Your task to perform on an android device: change notification settings in the gmail app Image 0: 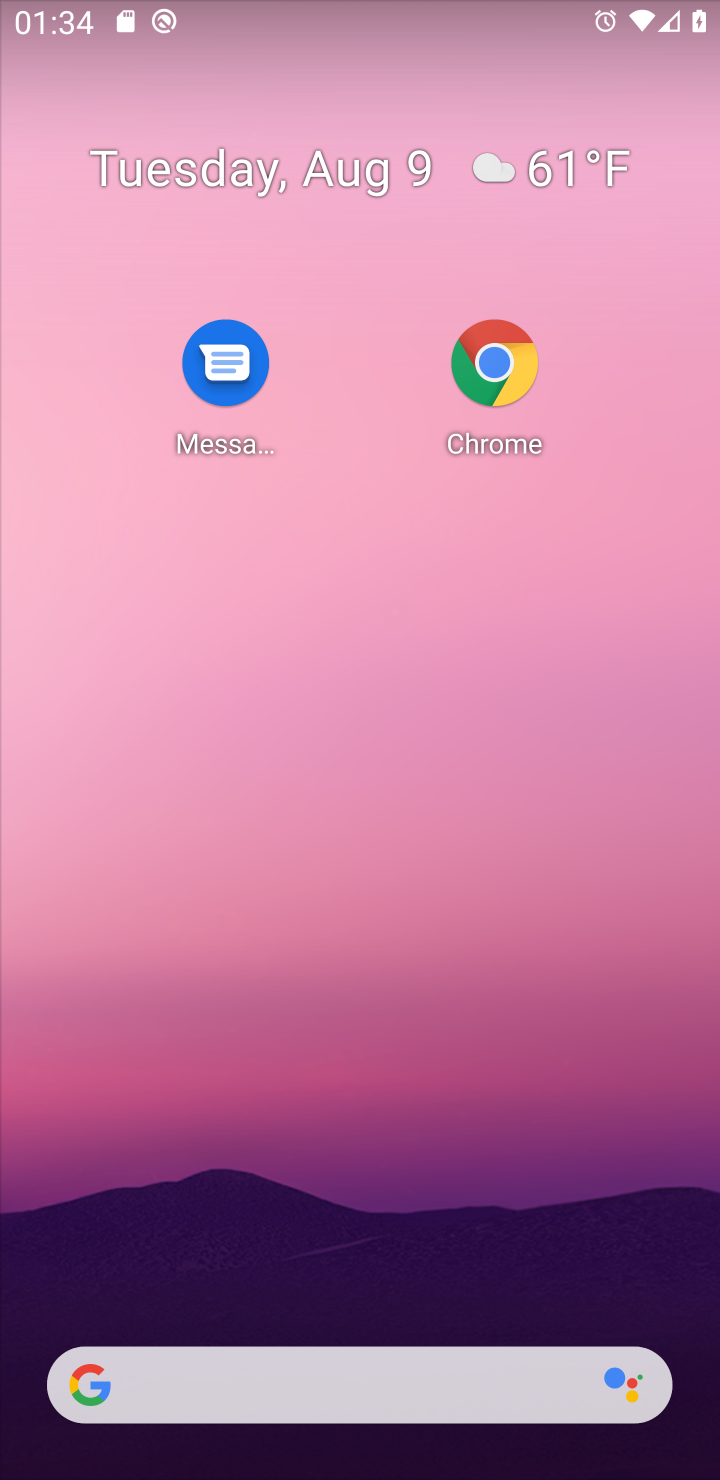
Step 0: drag from (504, 1189) to (647, 547)
Your task to perform on an android device: change notification settings in the gmail app Image 1: 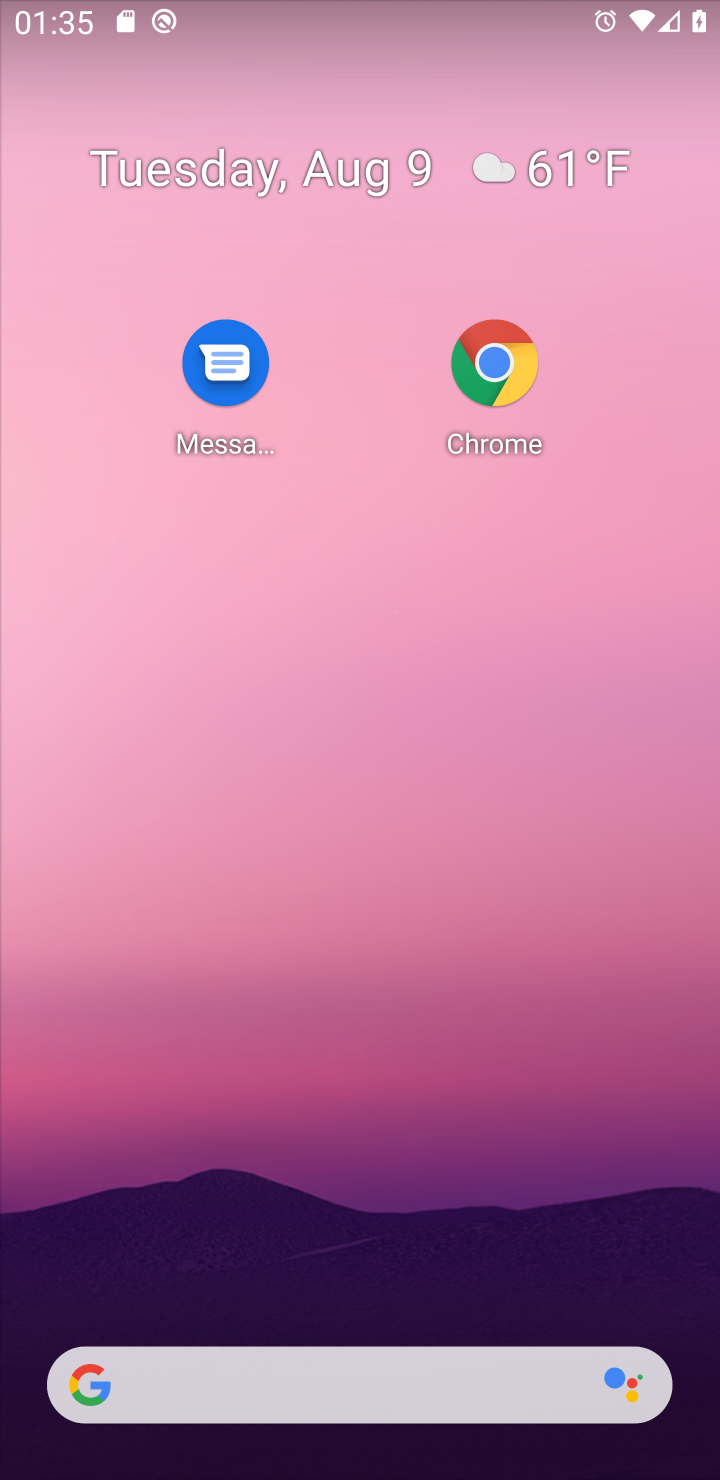
Step 1: drag from (281, 1234) to (270, 342)
Your task to perform on an android device: change notification settings in the gmail app Image 2: 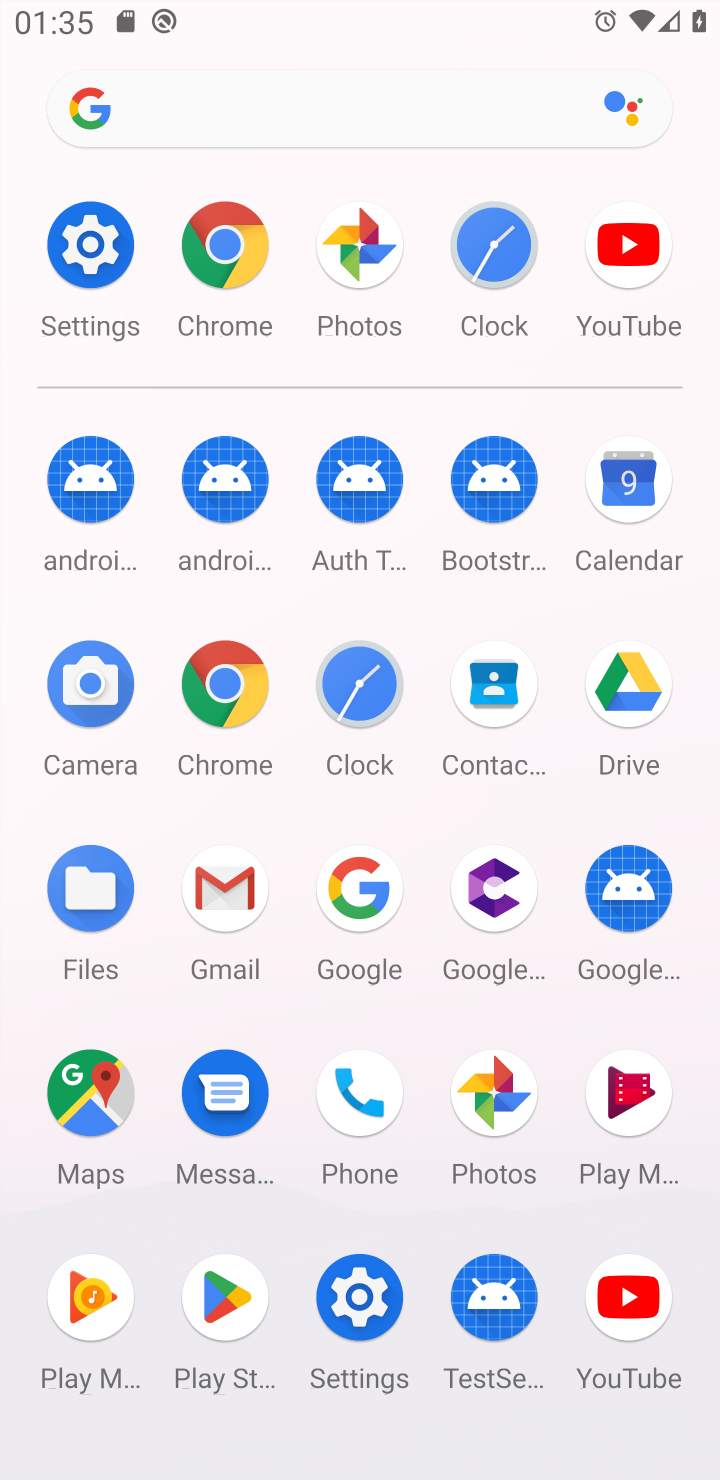
Step 2: click (233, 888)
Your task to perform on an android device: change notification settings in the gmail app Image 3: 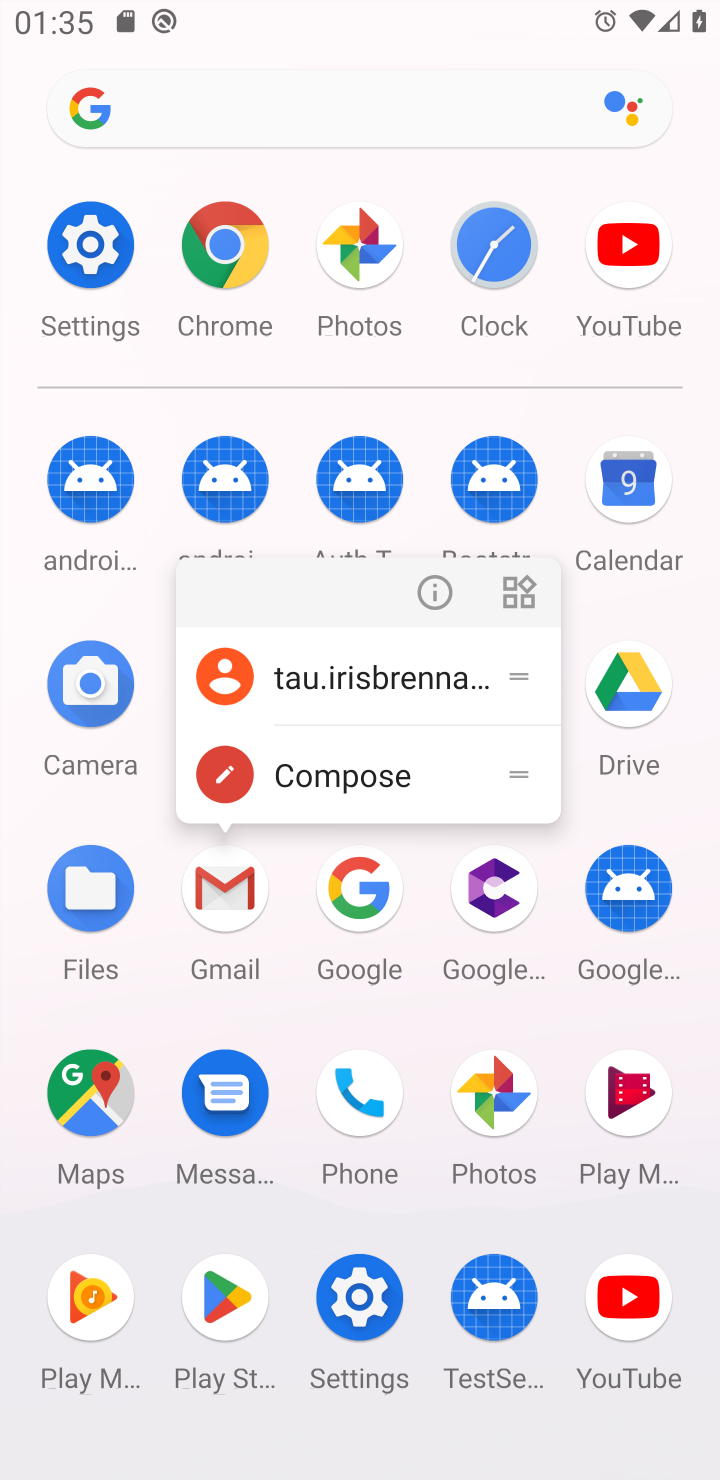
Step 3: click (222, 866)
Your task to perform on an android device: change notification settings in the gmail app Image 4: 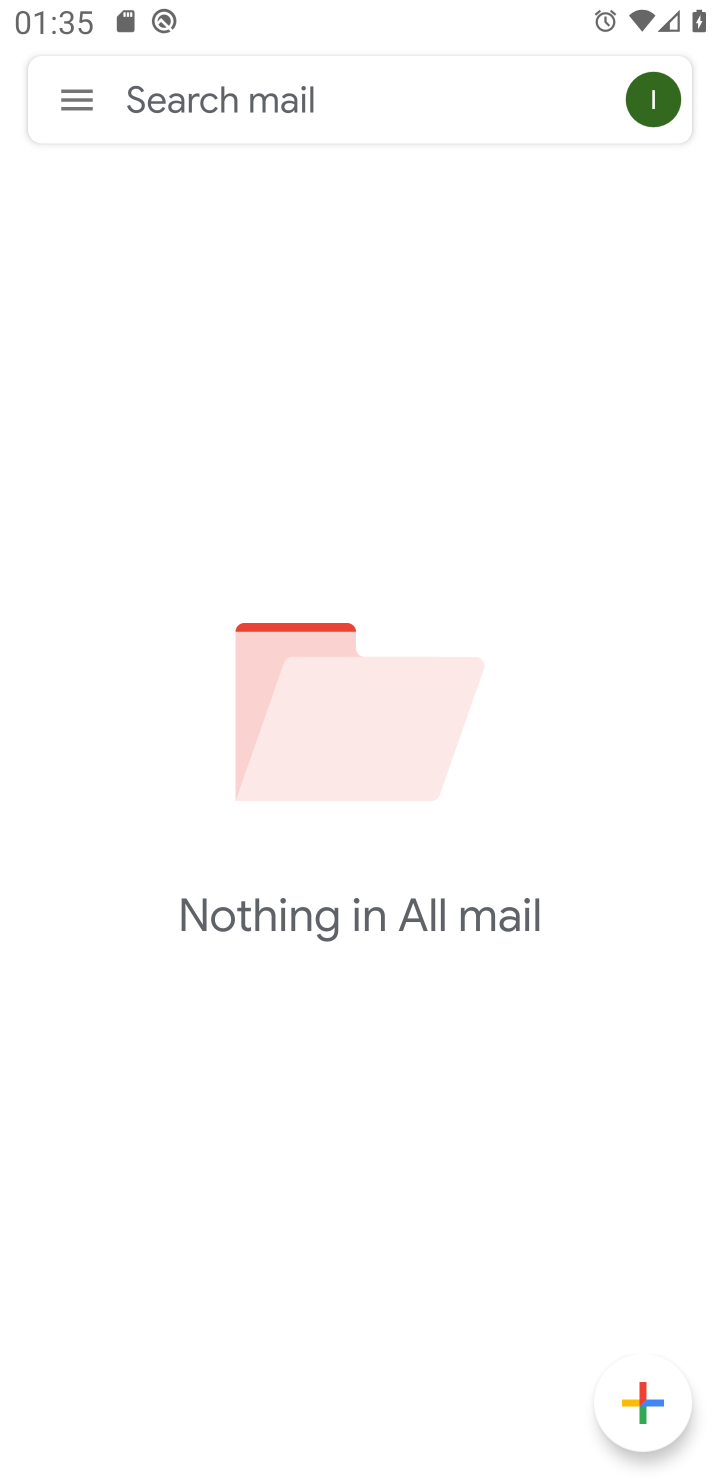
Step 4: click (74, 101)
Your task to perform on an android device: change notification settings in the gmail app Image 5: 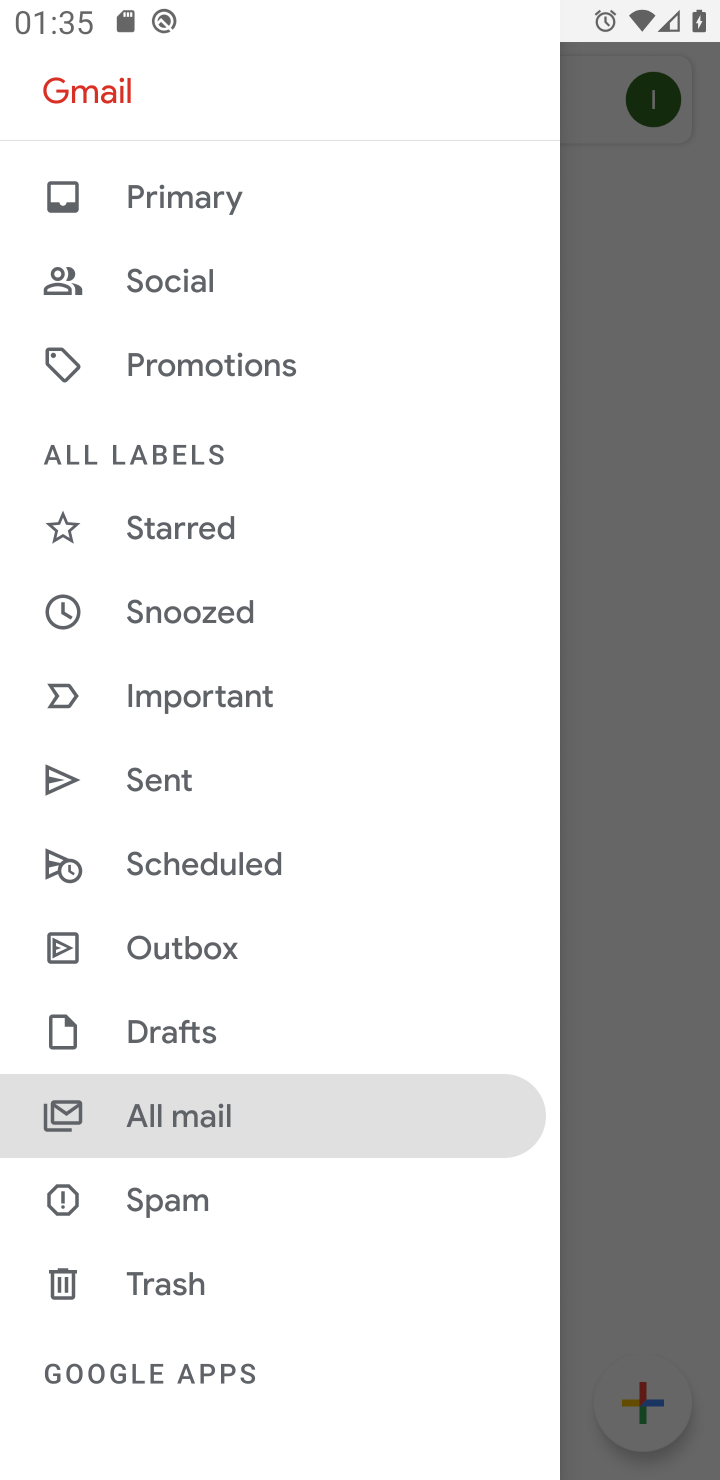
Step 5: drag from (177, 1313) to (350, 500)
Your task to perform on an android device: change notification settings in the gmail app Image 6: 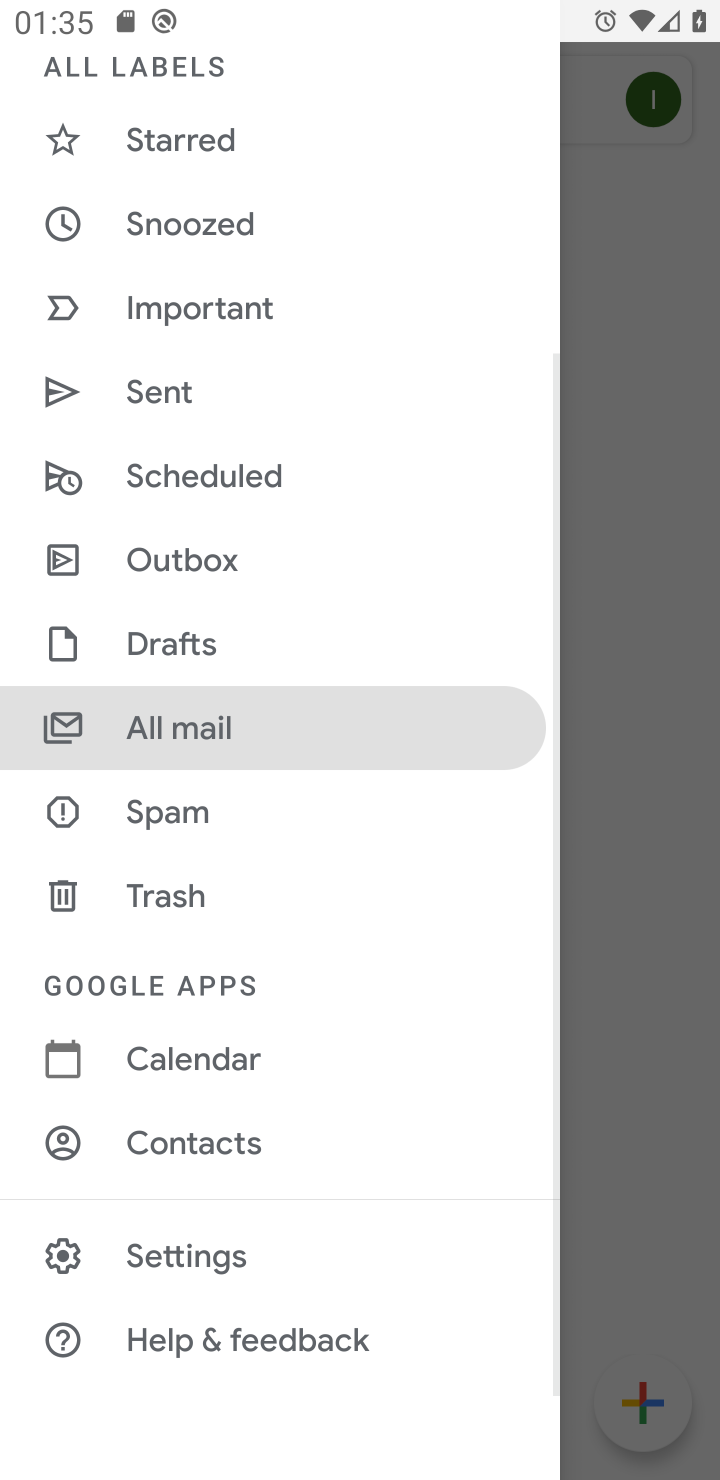
Step 6: click (163, 1255)
Your task to perform on an android device: change notification settings in the gmail app Image 7: 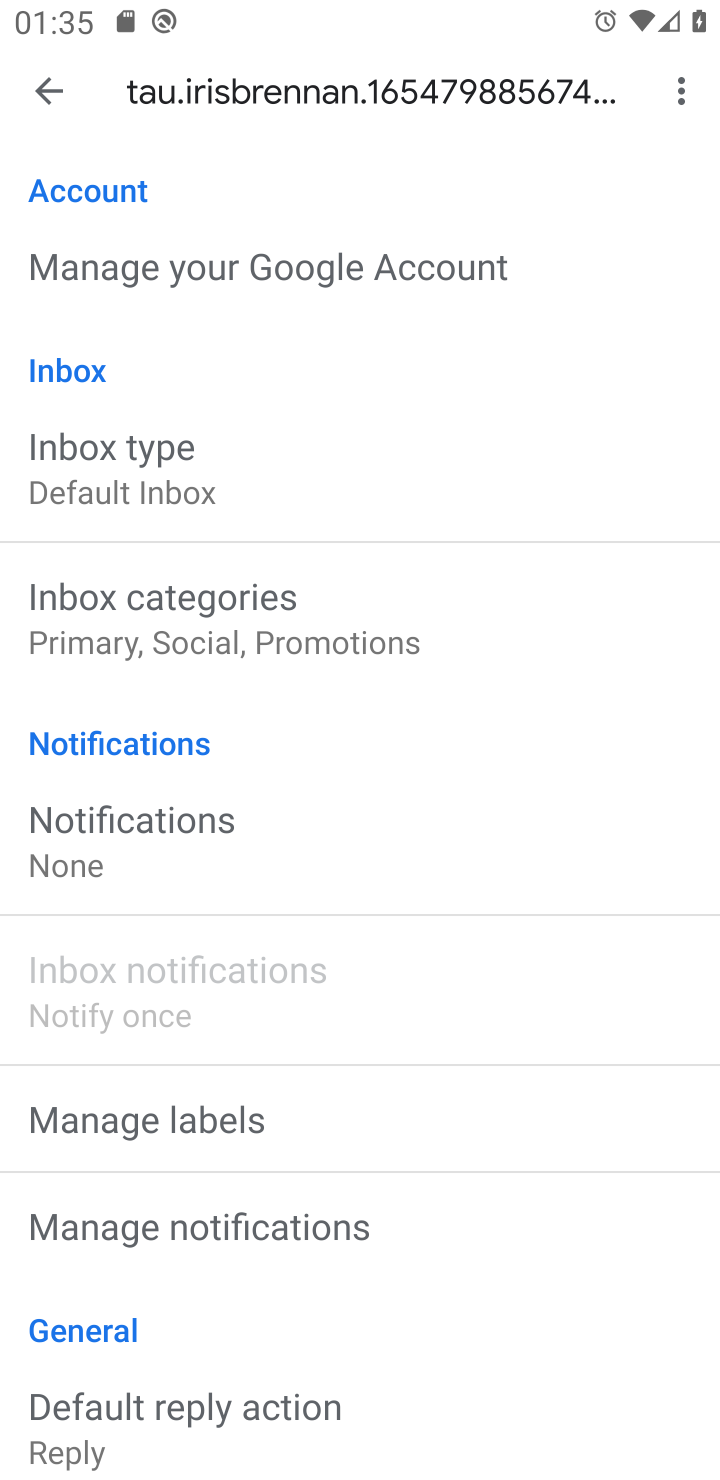
Step 7: click (141, 802)
Your task to perform on an android device: change notification settings in the gmail app Image 8: 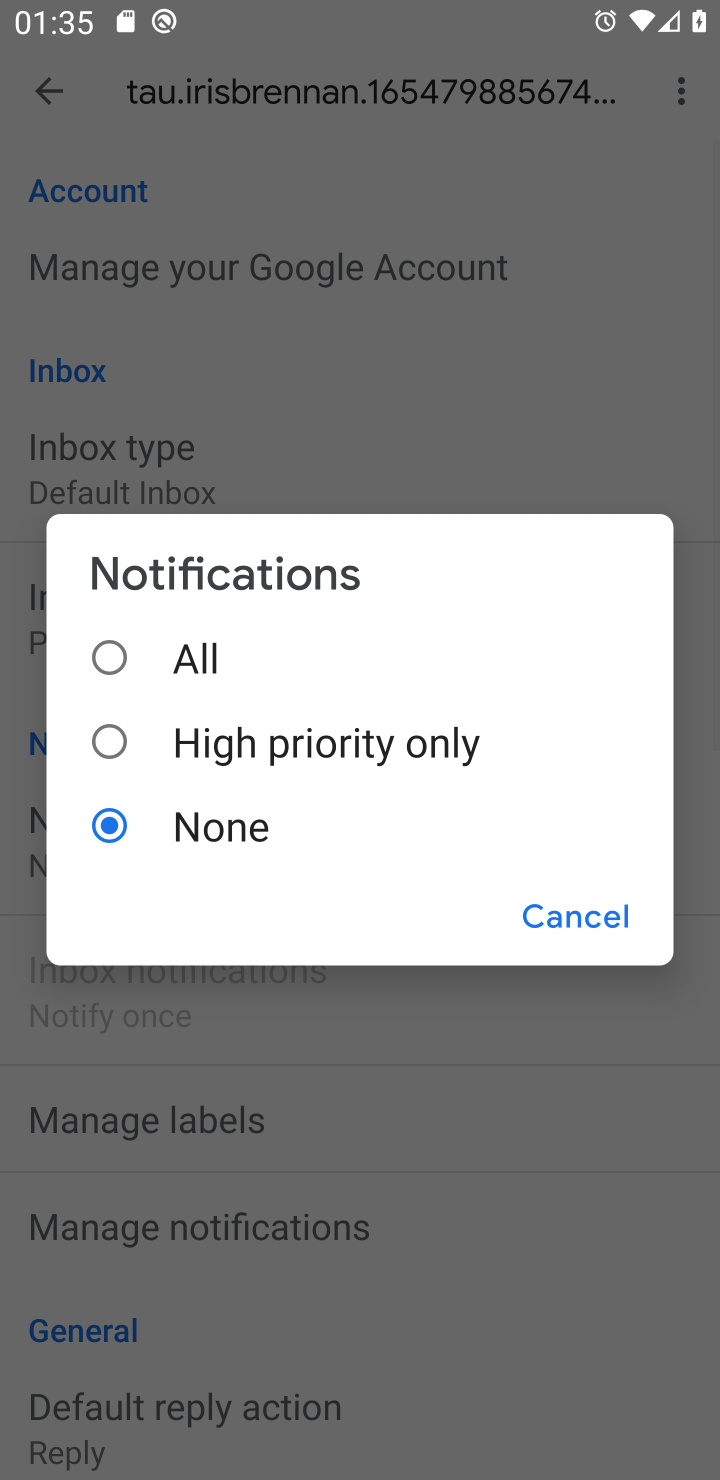
Step 8: click (179, 676)
Your task to perform on an android device: change notification settings in the gmail app Image 9: 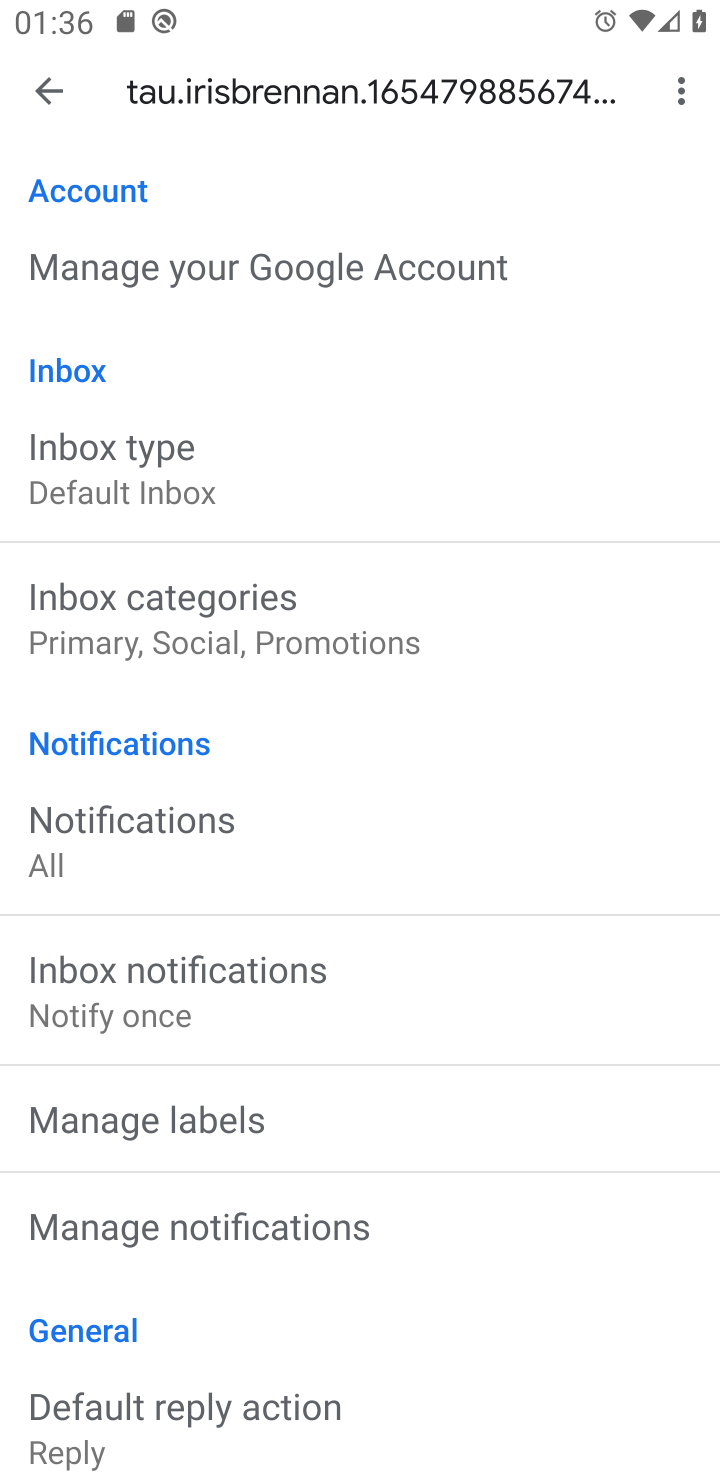
Step 9: task complete